Your task to perform on an android device: turn on showing notifications on the lock screen Image 0: 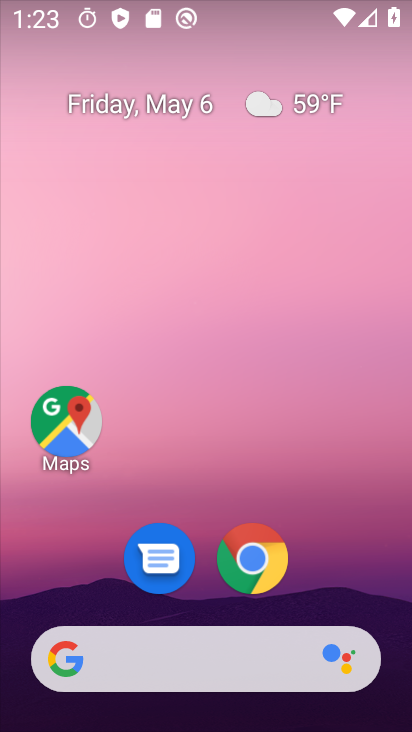
Step 0: drag from (203, 730) to (201, 121)
Your task to perform on an android device: turn on showing notifications on the lock screen Image 1: 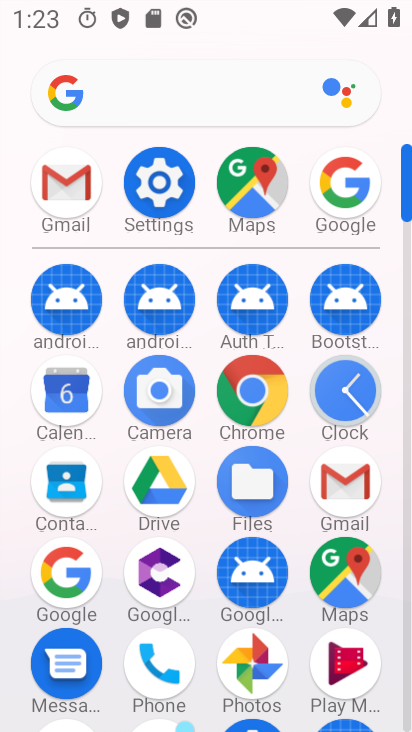
Step 1: click (160, 183)
Your task to perform on an android device: turn on showing notifications on the lock screen Image 2: 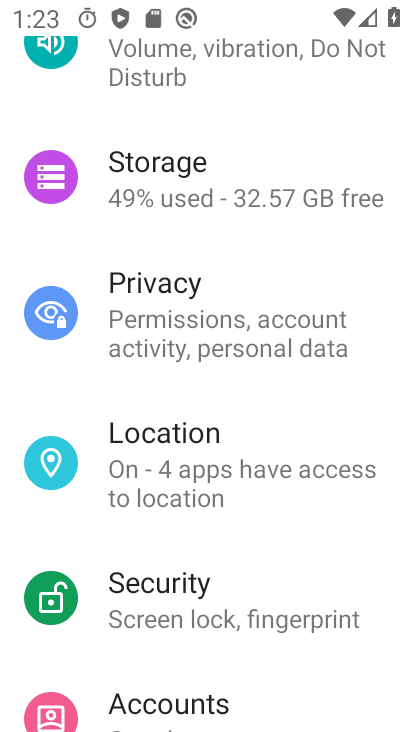
Step 2: drag from (204, 132) to (168, 627)
Your task to perform on an android device: turn on showing notifications on the lock screen Image 3: 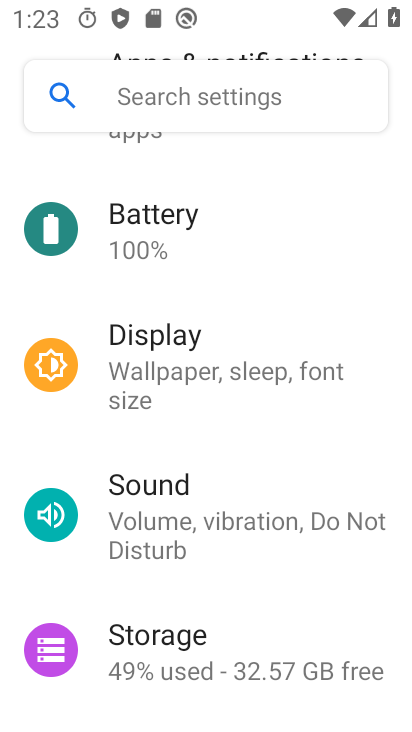
Step 3: drag from (227, 196) to (213, 567)
Your task to perform on an android device: turn on showing notifications on the lock screen Image 4: 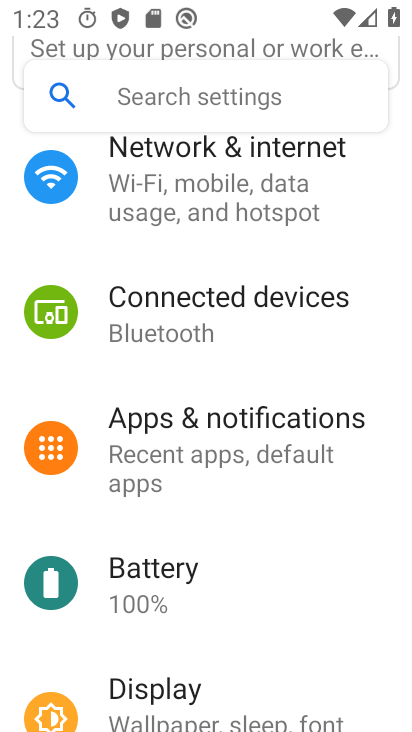
Step 4: click (233, 433)
Your task to perform on an android device: turn on showing notifications on the lock screen Image 5: 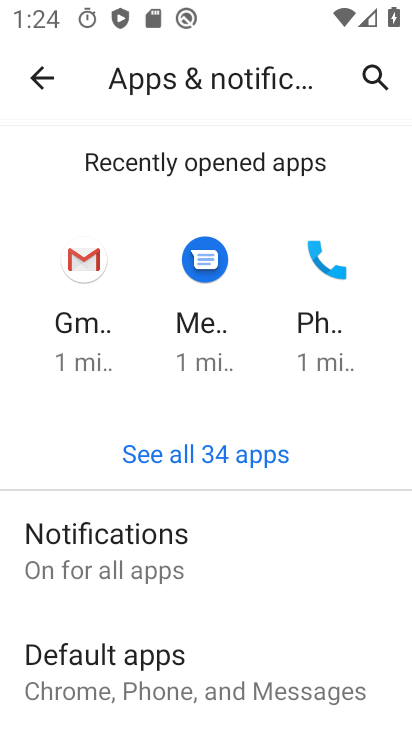
Step 5: click (84, 558)
Your task to perform on an android device: turn on showing notifications on the lock screen Image 6: 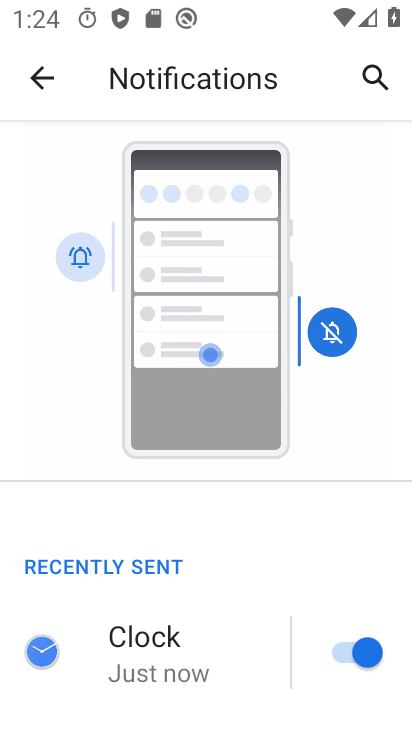
Step 6: drag from (248, 686) to (242, 262)
Your task to perform on an android device: turn on showing notifications on the lock screen Image 7: 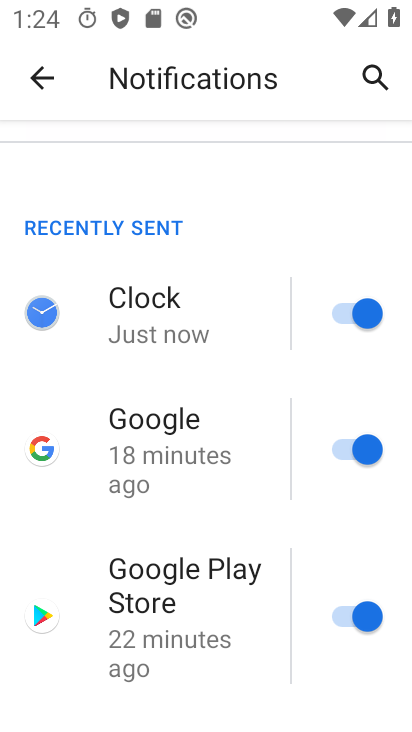
Step 7: drag from (232, 686) to (235, 270)
Your task to perform on an android device: turn on showing notifications on the lock screen Image 8: 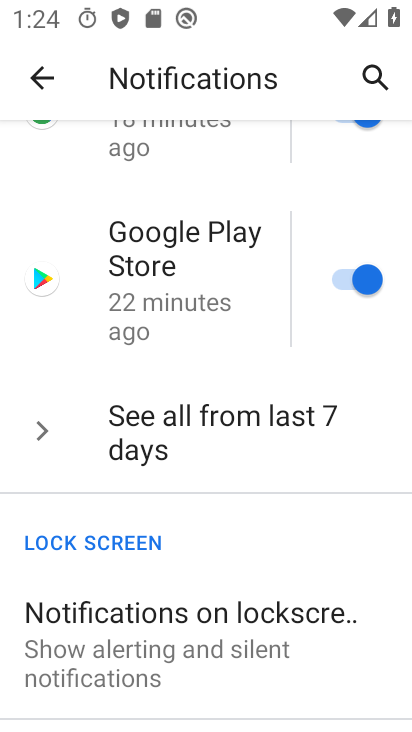
Step 8: click (218, 631)
Your task to perform on an android device: turn on showing notifications on the lock screen Image 9: 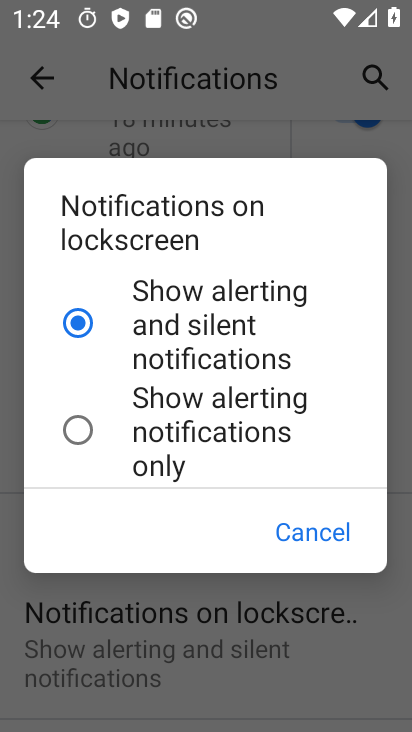
Step 9: click (314, 535)
Your task to perform on an android device: turn on showing notifications on the lock screen Image 10: 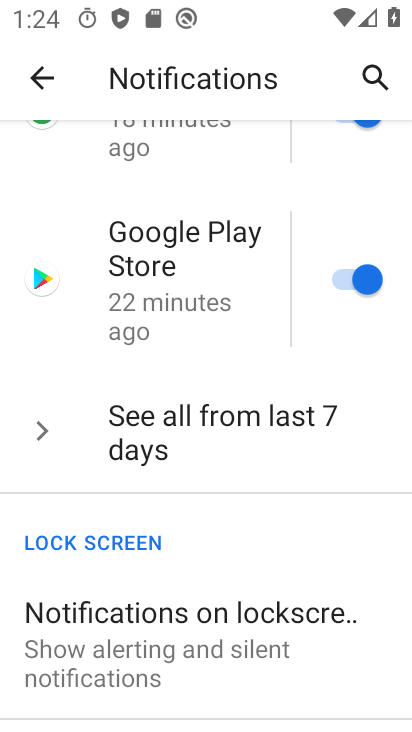
Step 10: task complete